Your task to perform on an android device: toggle sleep mode Image 0: 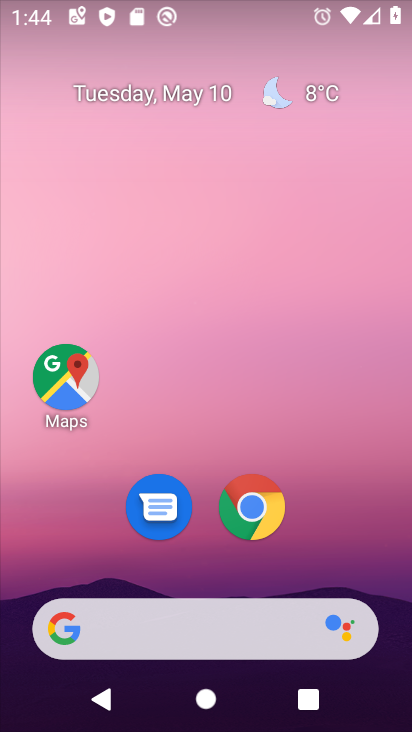
Step 0: drag from (227, 725) to (216, 186)
Your task to perform on an android device: toggle sleep mode Image 1: 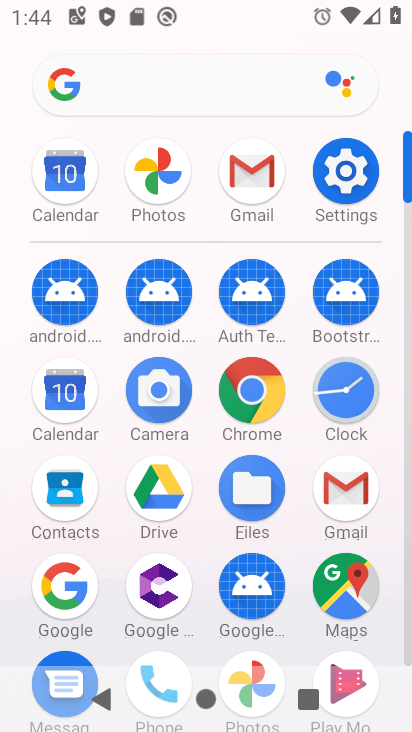
Step 1: click (344, 168)
Your task to perform on an android device: toggle sleep mode Image 2: 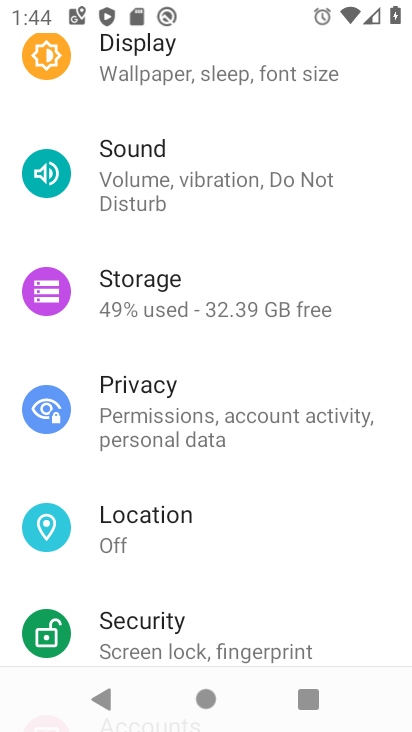
Step 2: drag from (208, 123) to (207, 615)
Your task to perform on an android device: toggle sleep mode Image 3: 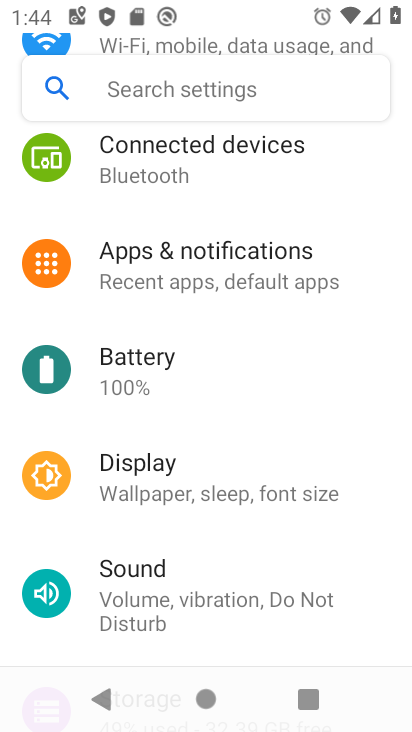
Step 3: click (262, 204)
Your task to perform on an android device: toggle sleep mode Image 4: 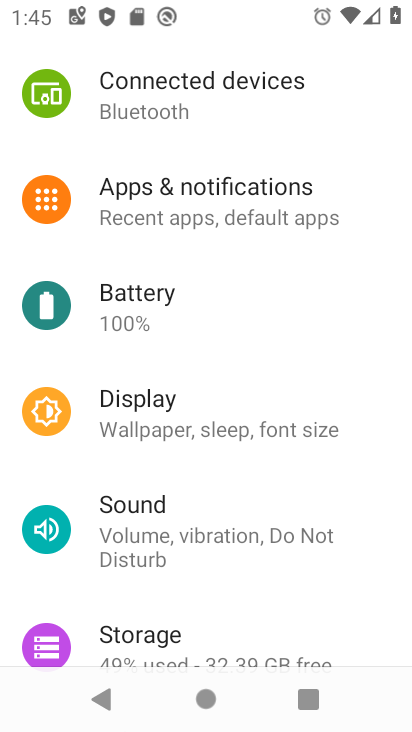
Step 4: task complete